Your task to perform on an android device: Search for Italian restaurants on Maps Image 0: 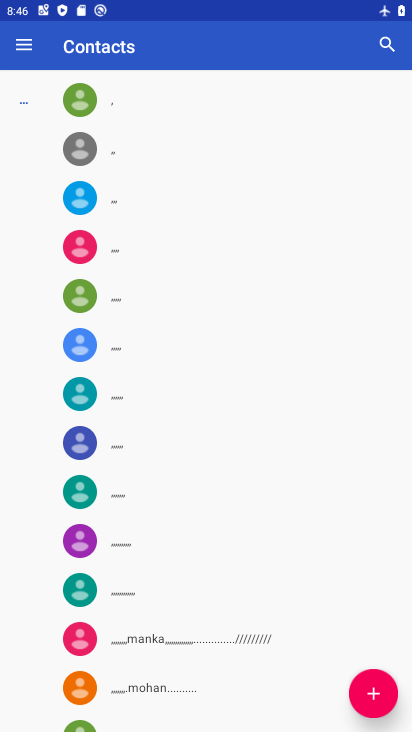
Step 0: press home button
Your task to perform on an android device: Search for Italian restaurants on Maps Image 1: 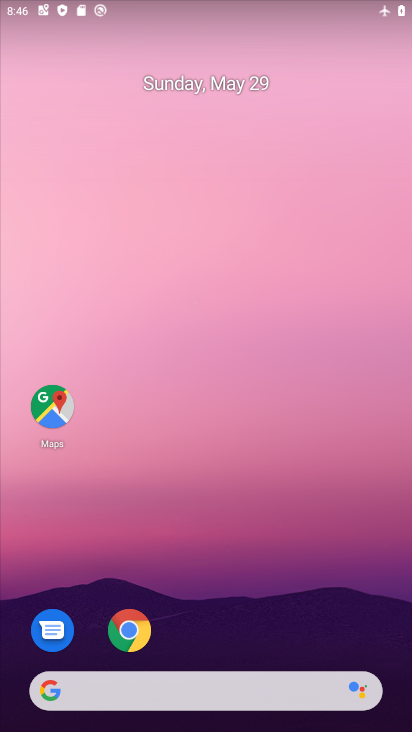
Step 1: drag from (184, 640) to (186, 177)
Your task to perform on an android device: Search for Italian restaurants on Maps Image 2: 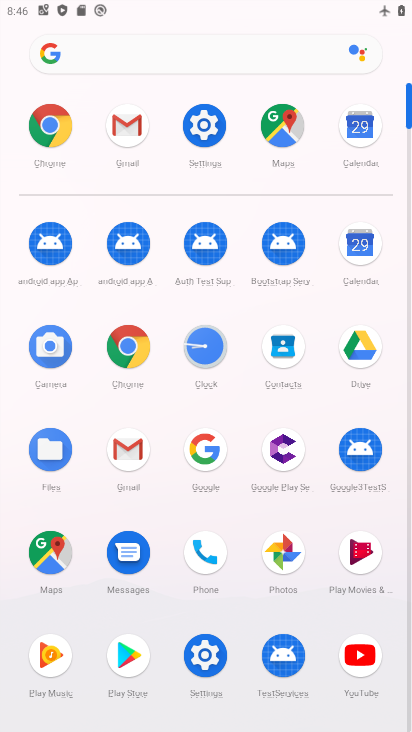
Step 2: click (281, 122)
Your task to perform on an android device: Search for Italian restaurants on Maps Image 3: 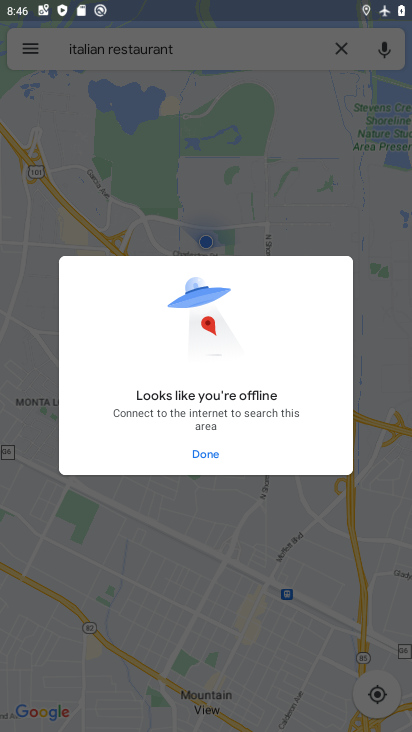
Step 3: click (198, 459)
Your task to perform on an android device: Search for Italian restaurants on Maps Image 4: 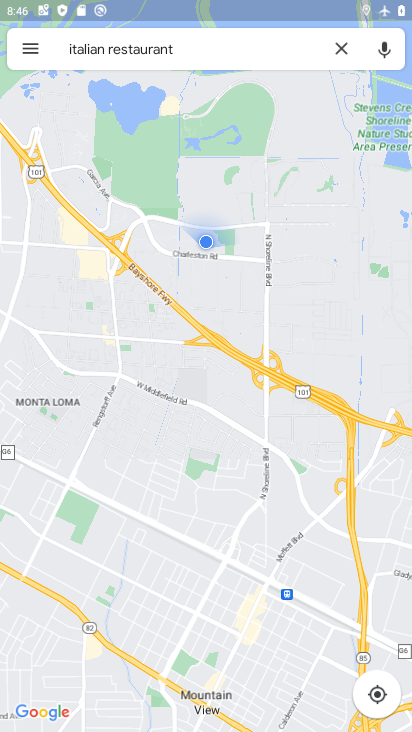
Step 4: task complete